Your task to perform on an android device: toggle pop-ups in chrome Image 0: 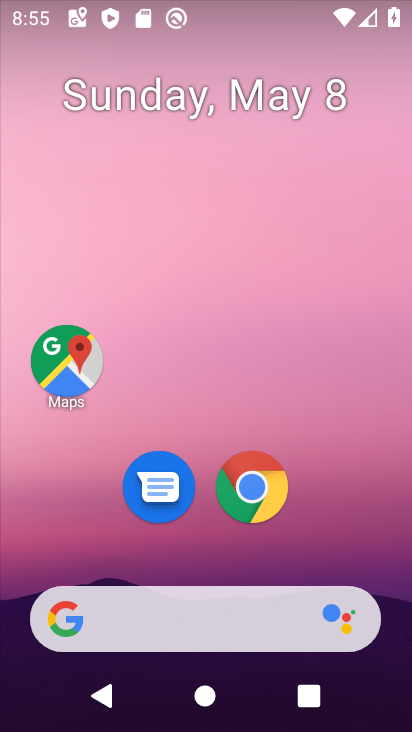
Step 0: click (267, 492)
Your task to perform on an android device: toggle pop-ups in chrome Image 1: 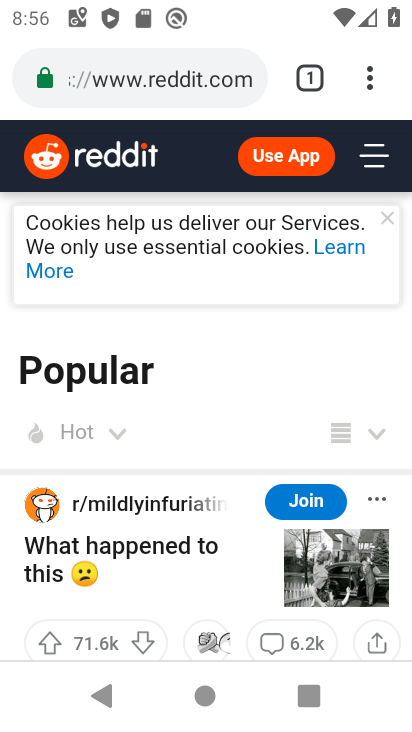
Step 1: drag from (368, 74) to (150, 541)
Your task to perform on an android device: toggle pop-ups in chrome Image 2: 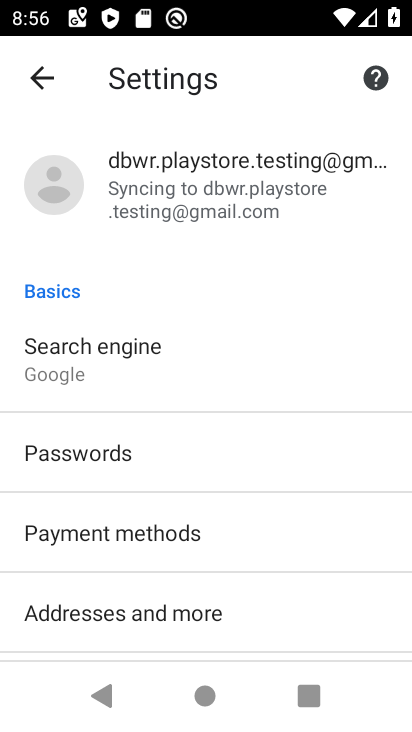
Step 2: drag from (240, 578) to (266, 335)
Your task to perform on an android device: toggle pop-ups in chrome Image 3: 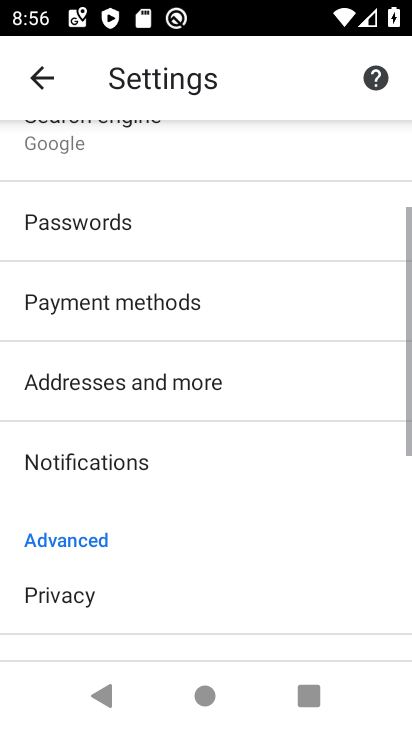
Step 3: drag from (236, 606) to (244, 318)
Your task to perform on an android device: toggle pop-ups in chrome Image 4: 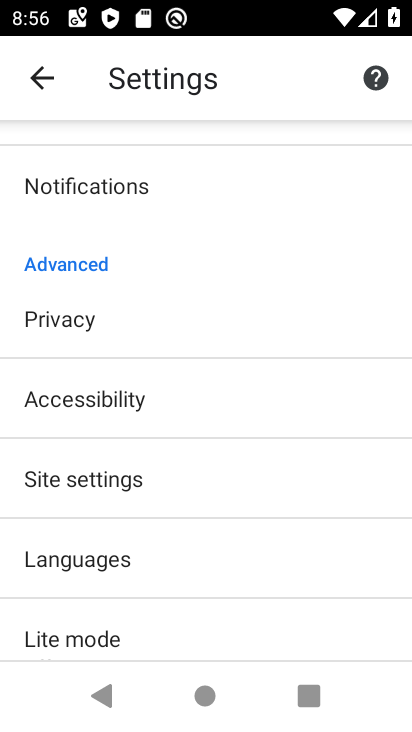
Step 4: click (161, 472)
Your task to perform on an android device: toggle pop-ups in chrome Image 5: 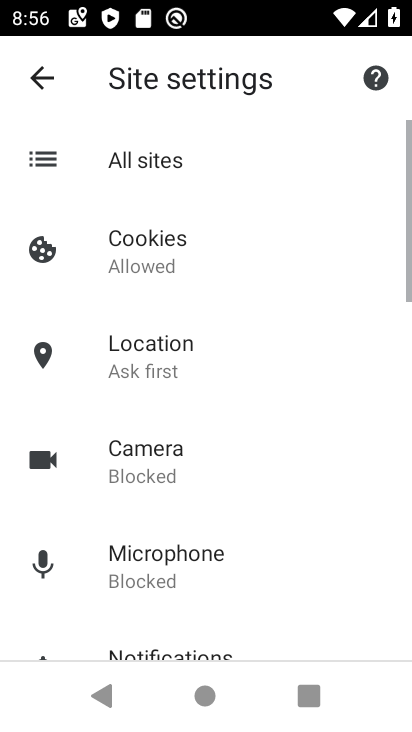
Step 5: drag from (225, 583) to (238, 324)
Your task to perform on an android device: toggle pop-ups in chrome Image 6: 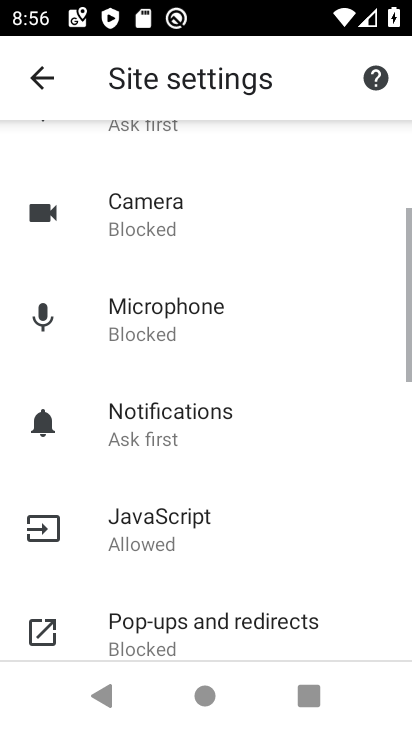
Step 6: drag from (248, 570) to (256, 380)
Your task to perform on an android device: toggle pop-ups in chrome Image 7: 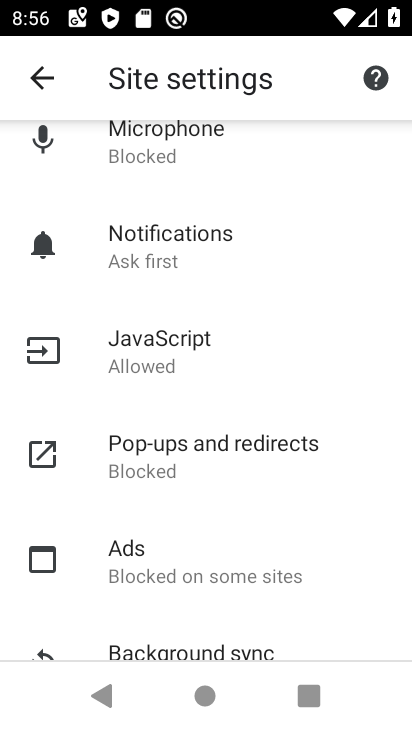
Step 7: click (249, 441)
Your task to perform on an android device: toggle pop-ups in chrome Image 8: 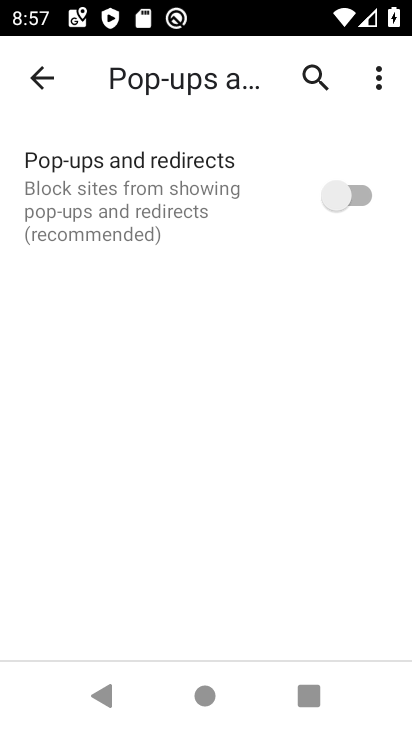
Step 8: click (362, 194)
Your task to perform on an android device: toggle pop-ups in chrome Image 9: 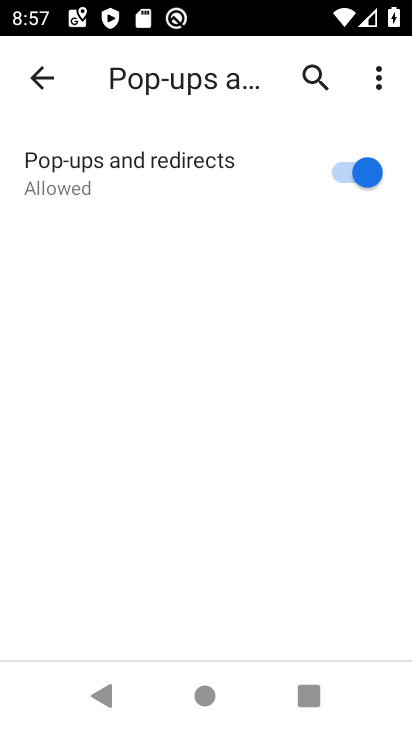
Step 9: task complete